Your task to perform on an android device: Open Google Chrome Image 0: 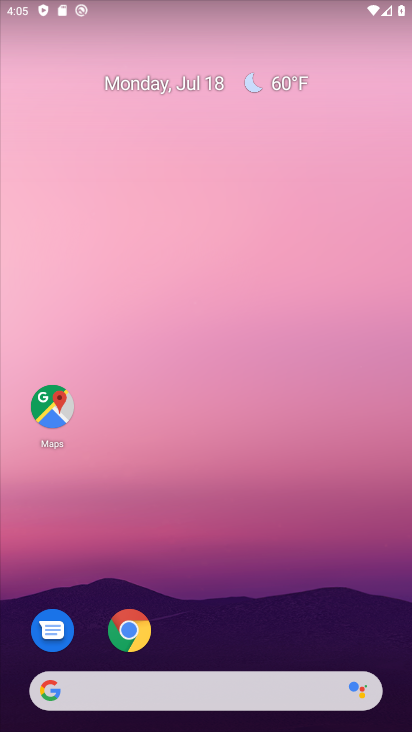
Step 0: click (143, 640)
Your task to perform on an android device: Open Google Chrome Image 1: 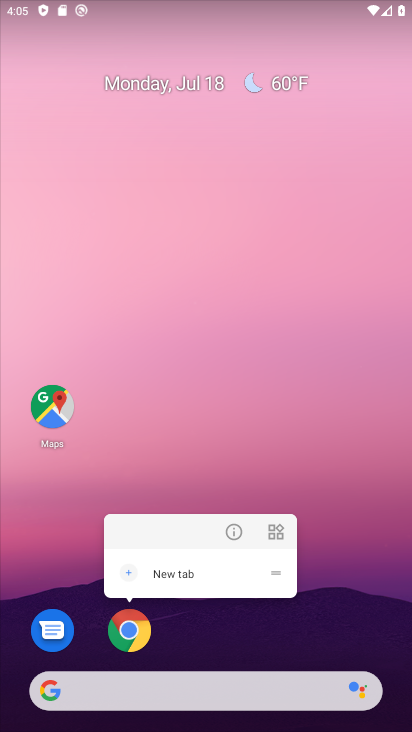
Step 1: click (145, 632)
Your task to perform on an android device: Open Google Chrome Image 2: 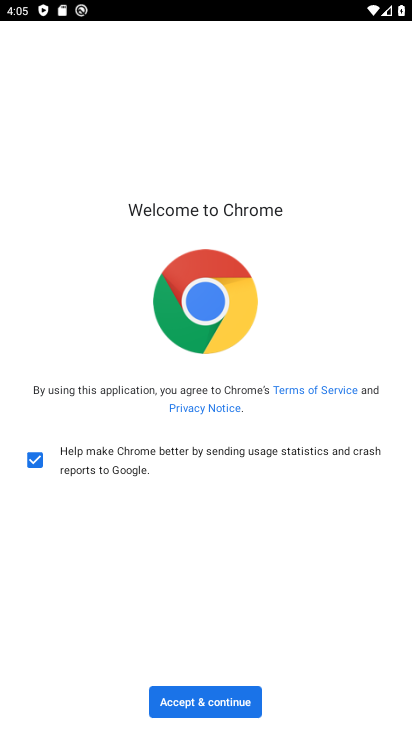
Step 2: click (252, 694)
Your task to perform on an android device: Open Google Chrome Image 3: 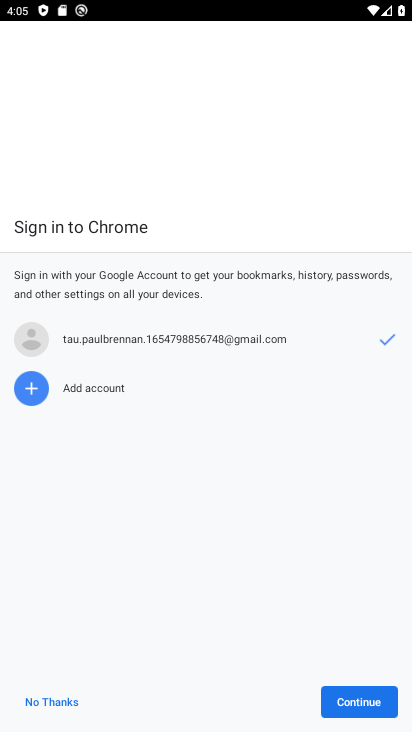
Step 3: click (369, 727)
Your task to perform on an android device: Open Google Chrome Image 4: 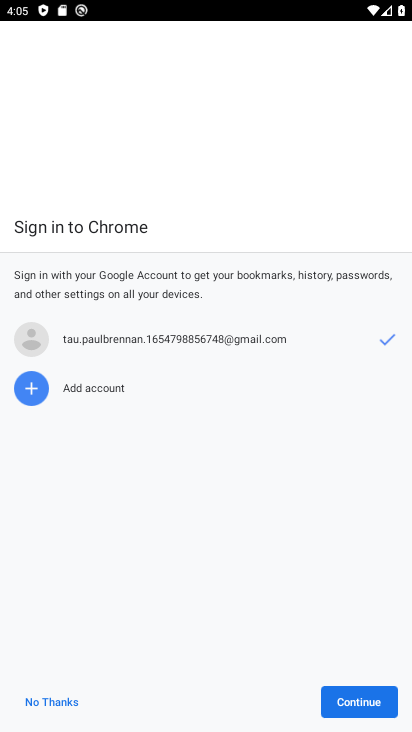
Step 4: click (371, 715)
Your task to perform on an android device: Open Google Chrome Image 5: 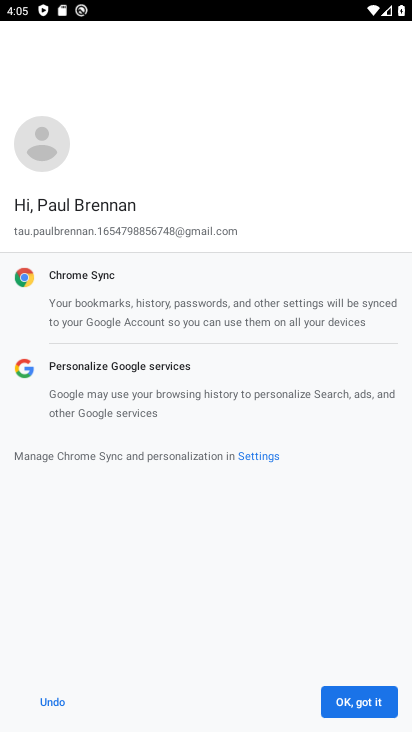
Step 5: click (380, 705)
Your task to perform on an android device: Open Google Chrome Image 6: 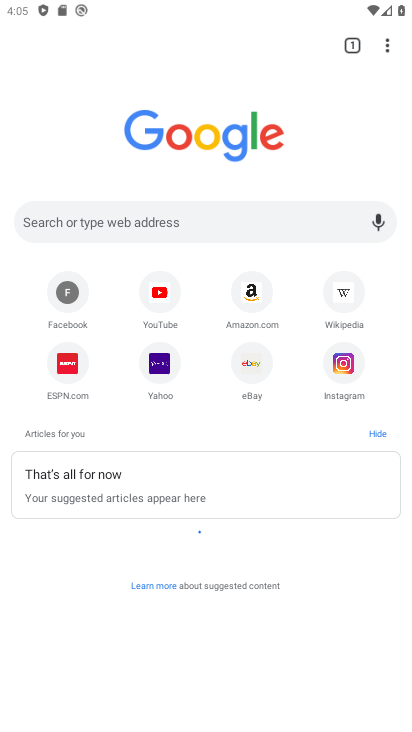
Step 6: task complete